Your task to perform on an android device: Open calendar and show me the fourth week of next month Image 0: 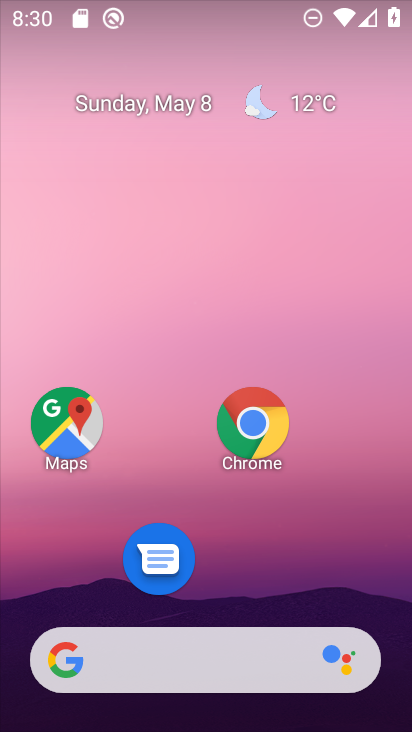
Step 0: drag from (353, 601) to (391, 9)
Your task to perform on an android device: Open calendar and show me the fourth week of next month Image 1: 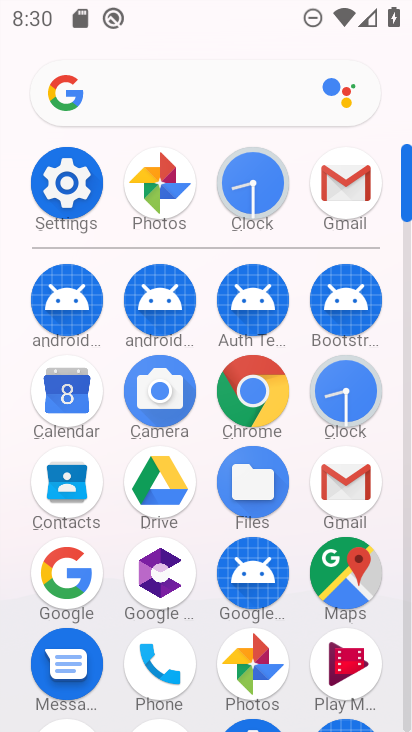
Step 1: click (70, 403)
Your task to perform on an android device: Open calendar and show me the fourth week of next month Image 2: 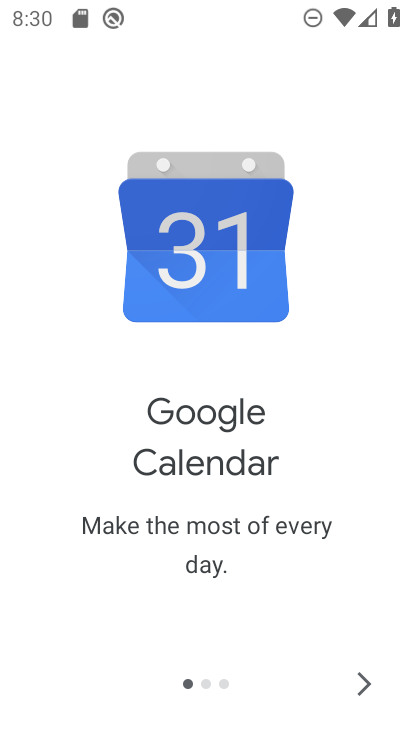
Step 2: click (367, 690)
Your task to perform on an android device: Open calendar and show me the fourth week of next month Image 3: 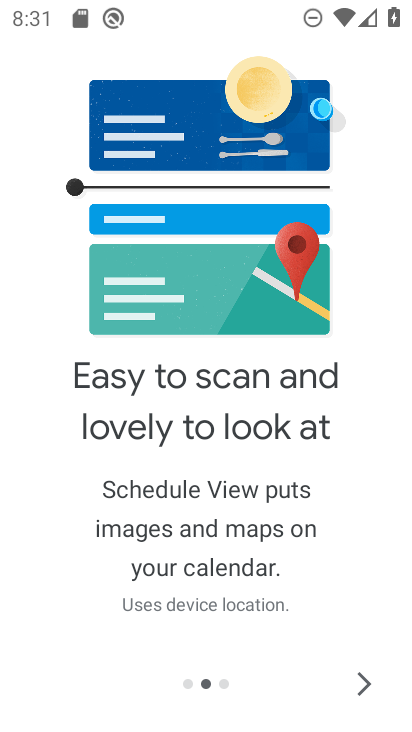
Step 3: click (367, 690)
Your task to perform on an android device: Open calendar and show me the fourth week of next month Image 4: 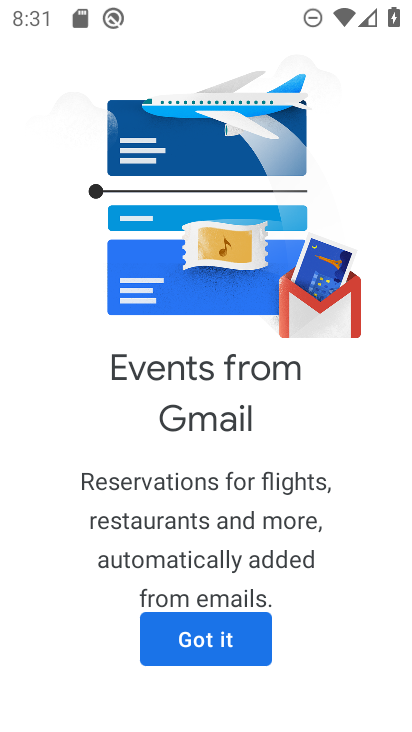
Step 4: click (203, 659)
Your task to perform on an android device: Open calendar and show me the fourth week of next month Image 5: 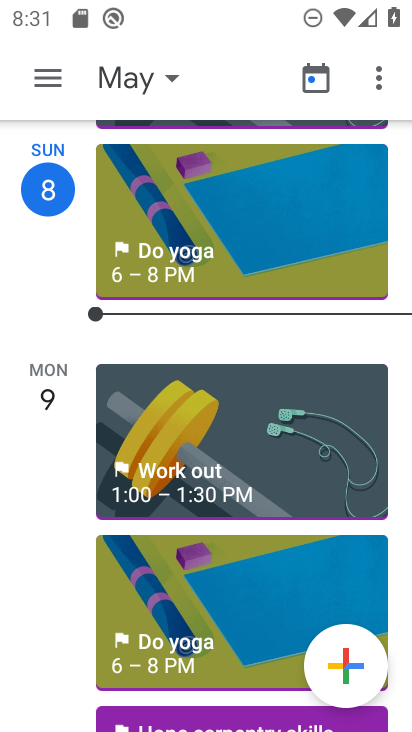
Step 5: click (172, 78)
Your task to perform on an android device: Open calendar and show me the fourth week of next month Image 6: 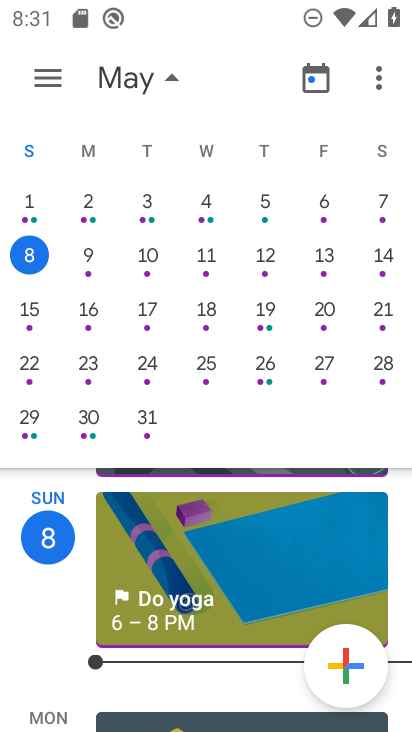
Step 6: drag from (237, 252) to (301, 730)
Your task to perform on an android device: Open calendar and show me the fourth week of next month Image 7: 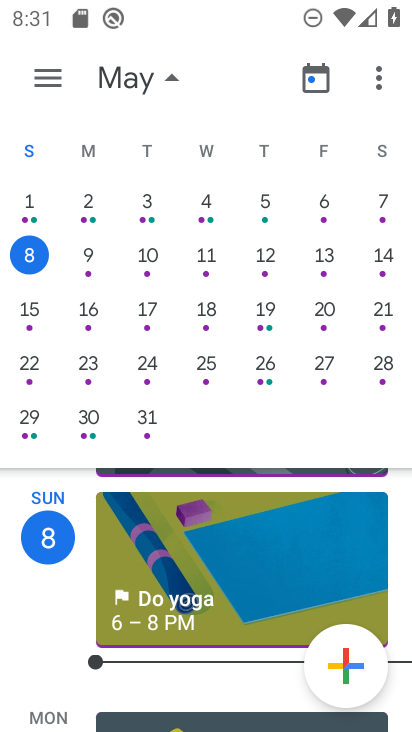
Step 7: drag from (351, 285) to (13, 354)
Your task to perform on an android device: Open calendar and show me the fourth week of next month Image 8: 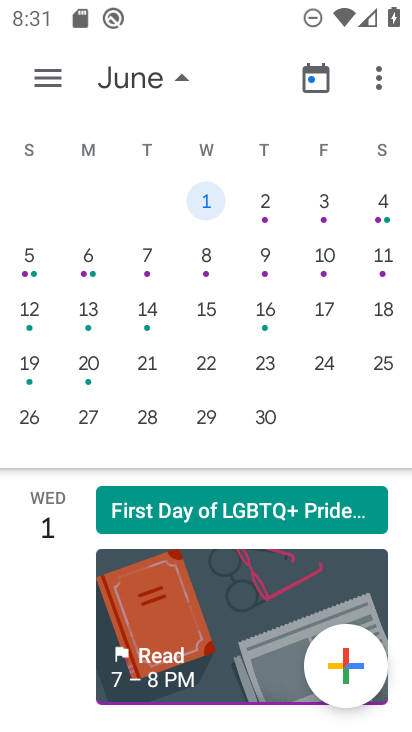
Step 8: click (52, 76)
Your task to perform on an android device: Open calendar and show me the fourth week of next month Image 9: 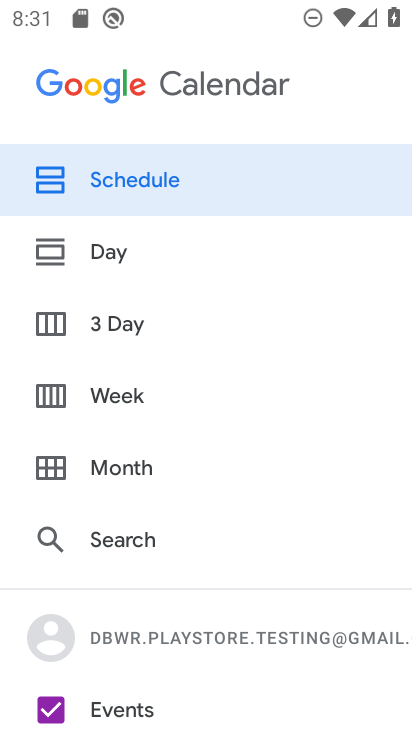
Step 9: click (92, 395)
Your task to perform on an android device: Open calendar and show me the fourth week of next month Image 10: 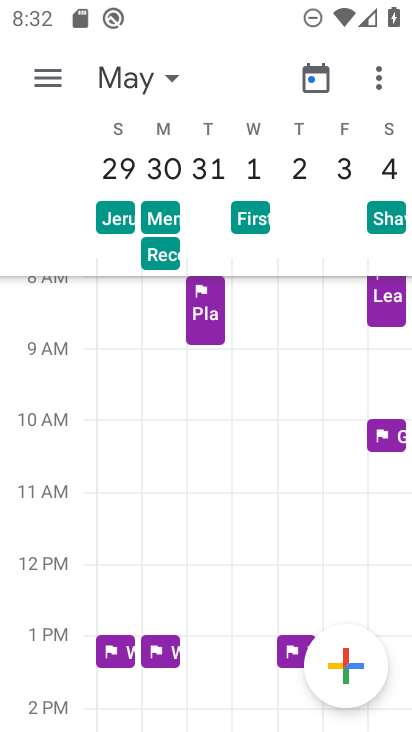
Step 10: task complete